Your task to perform on an android device: Open Chrome and go to the settings page Image 0: 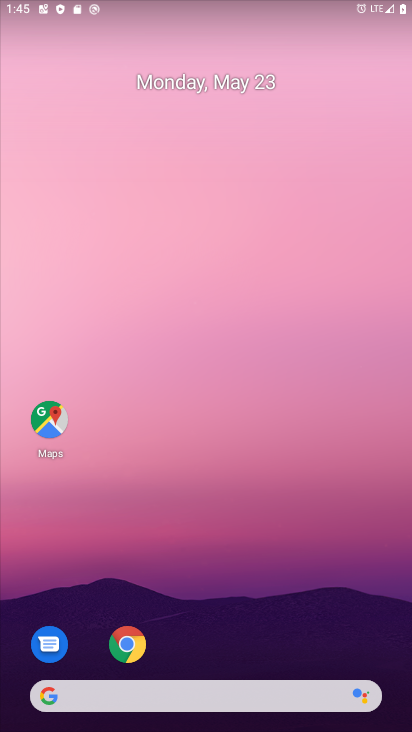
Step 0: drag from (316, 631) to (267, 71)
Your task to perform on an android device: Open Chrome and go to the settings page Image 1: 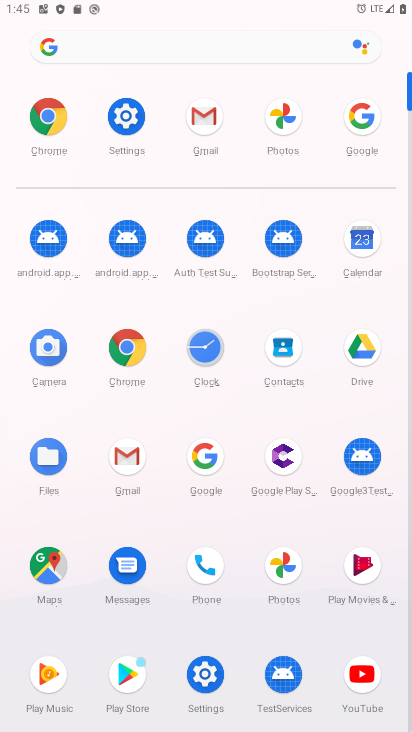
Step 1: click (109, 345)
Your task to perform on an android device: Open Chrome and go to the settings page Image 2: 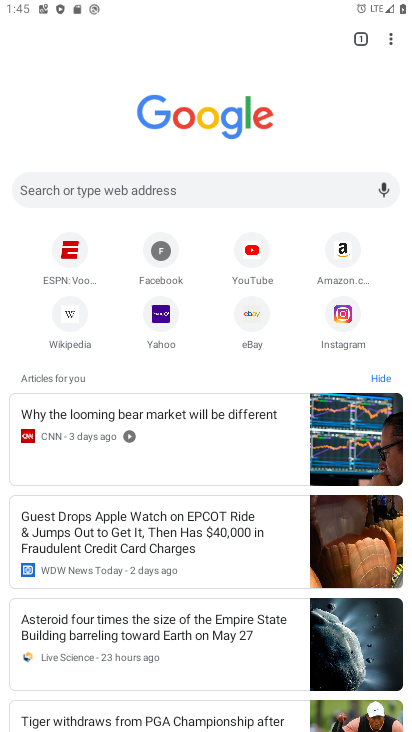
Step 2: click (395, 35)
Your task to perform on an android device: Open Chrome and go to the settings page Image 3: 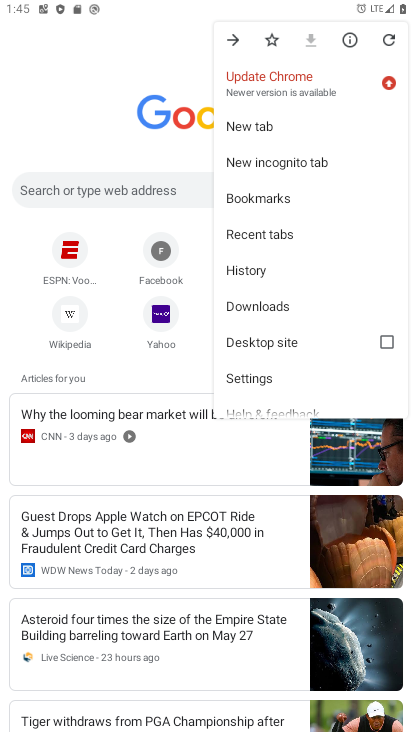
Step 3: click (276, 389)
Your task to perform on an android device: Open Chrome and go to the settings page Image 4: 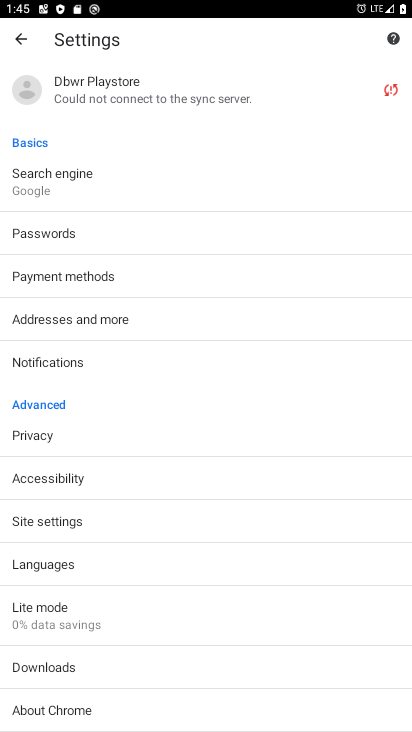
Step 4: task complete